Your task to perform on an android device: Go to privacy settings Image 0: 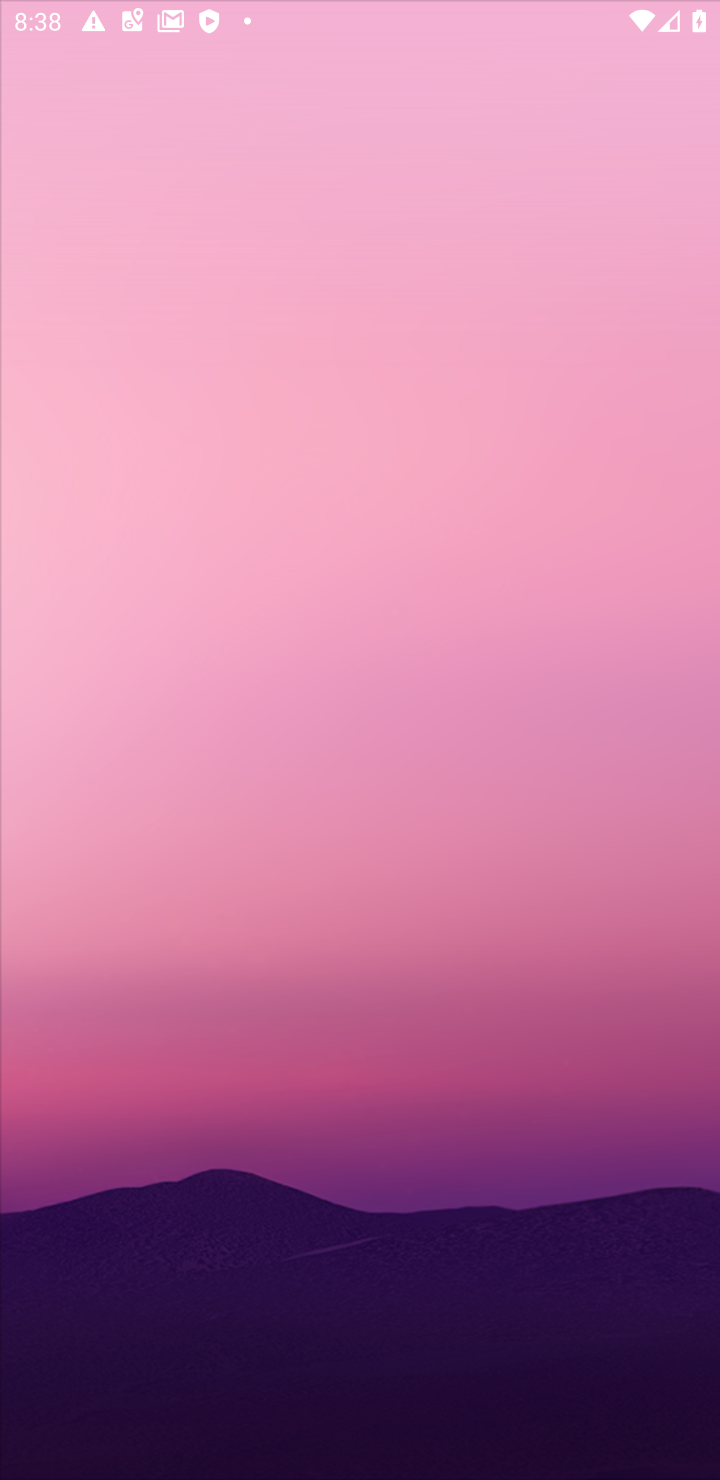
Step 0: click (612, 13)
Your task to perform on an android device: Go to privacy settings Image 1: 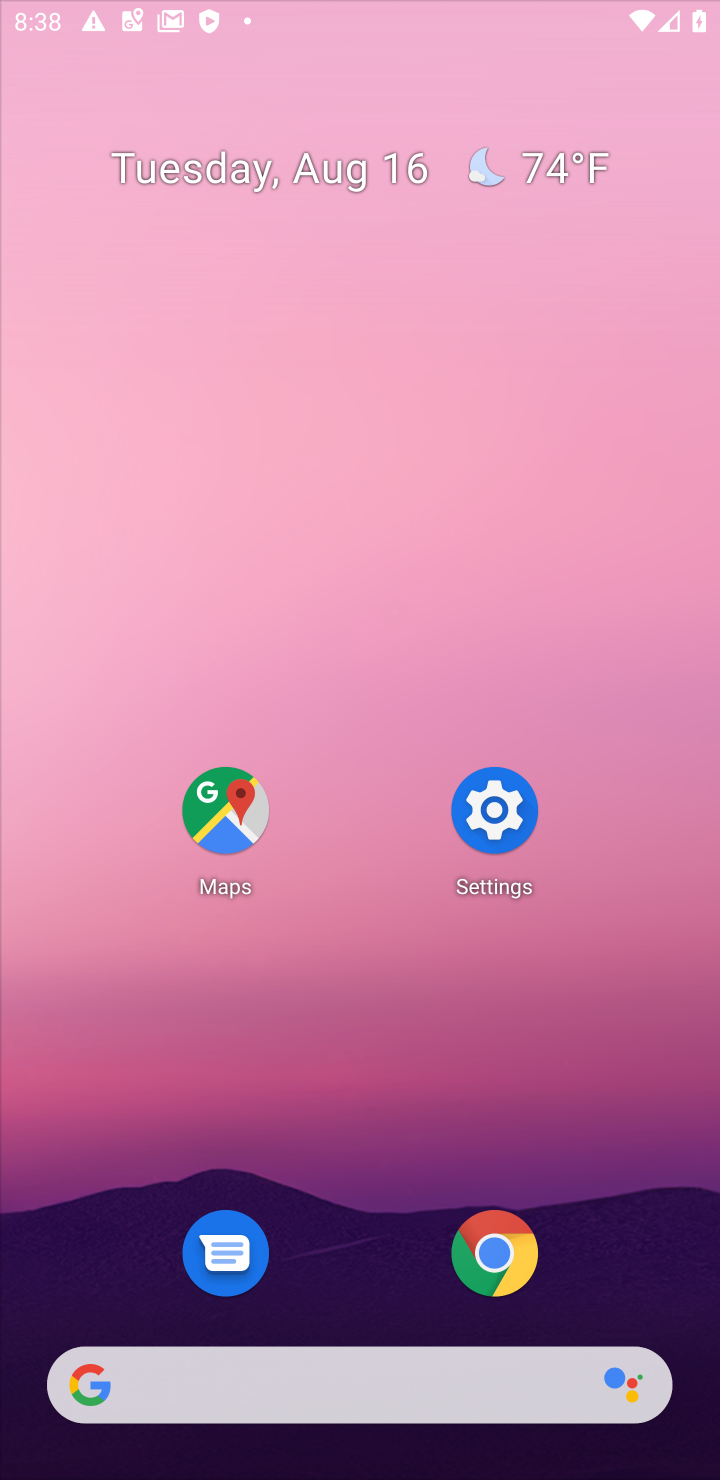
Step 1: press home button
Your task to perform on an android device: Go to privacy settings Image 2: 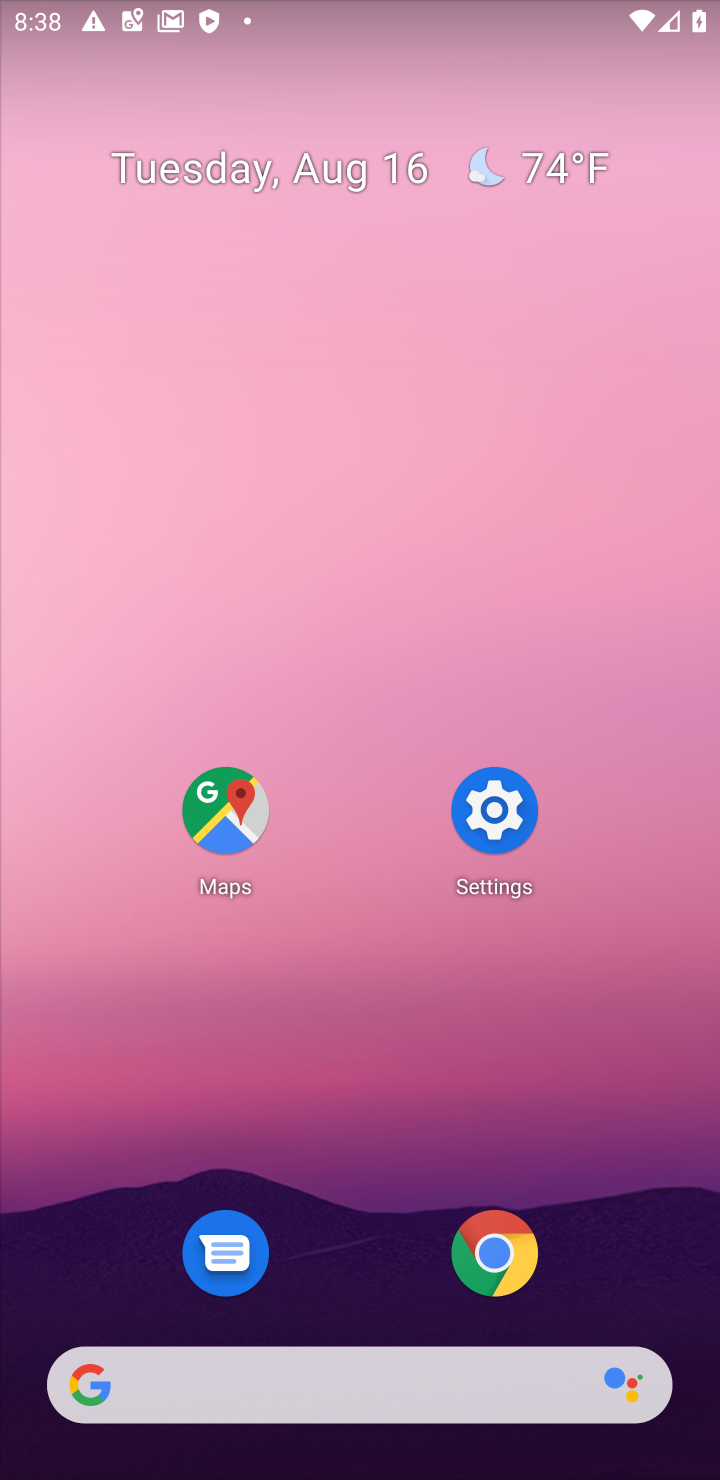
Step 2: press home button
Your task to perform on an android device: Go to privacy settings Image 3: 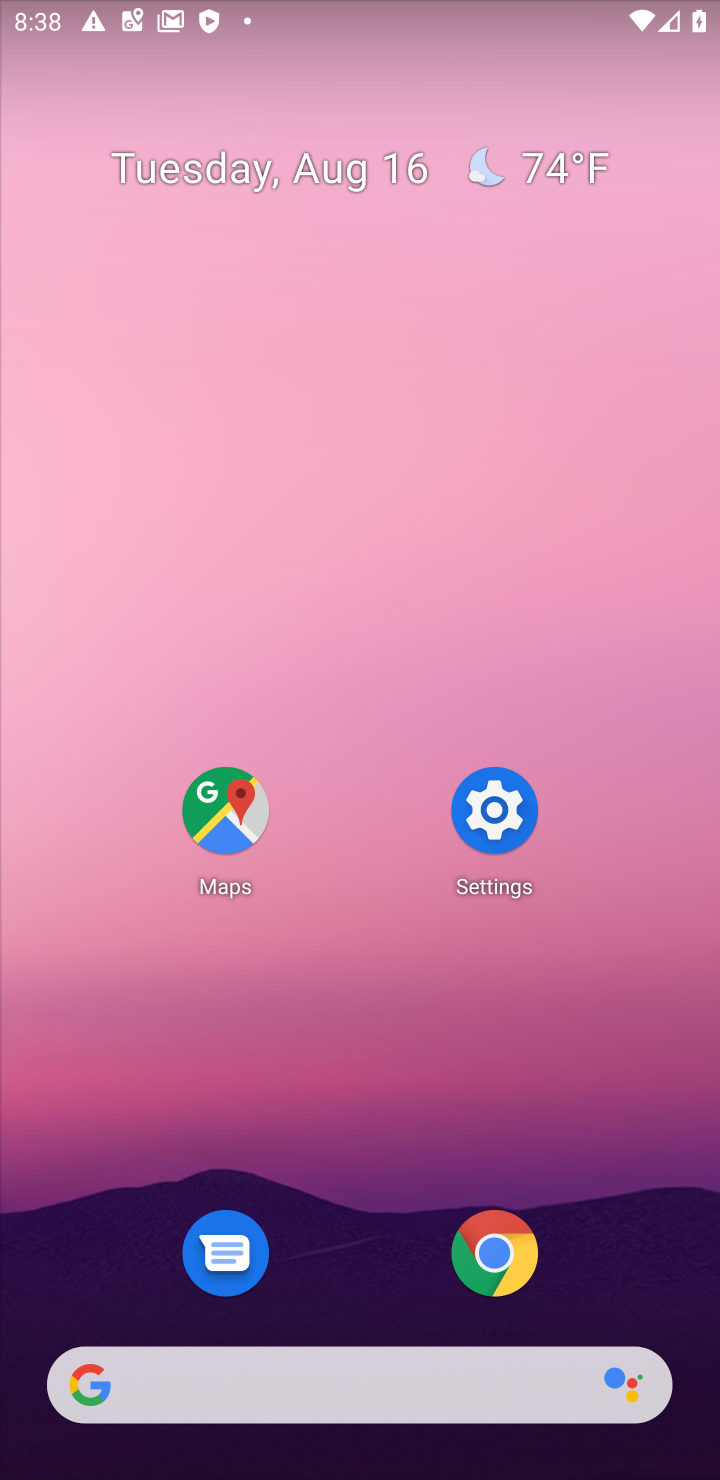
Step 3: click (481, 813)
Your task to perform on an android device: Go to privacy settings Image 4: 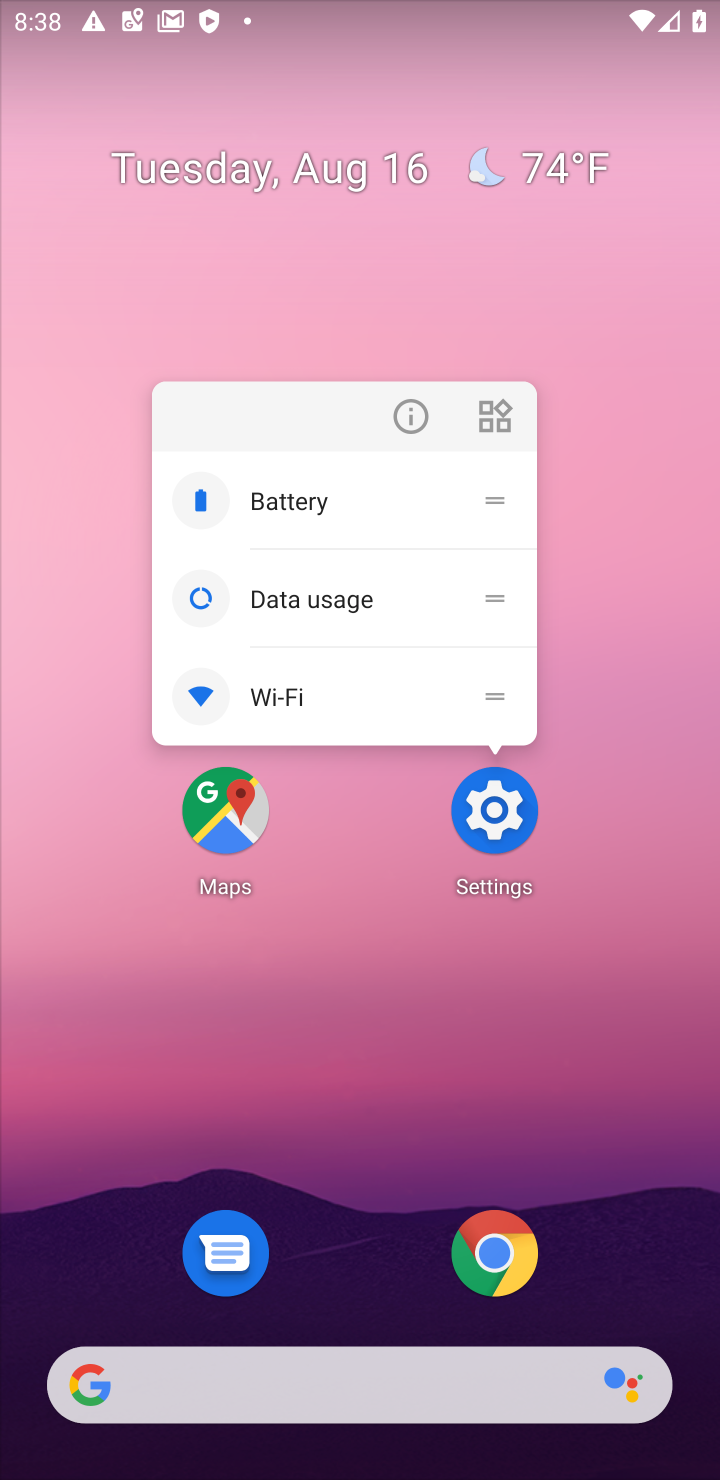
Step 4: click (494, 810)
Your task to perform on an android device: Go to privacy settings Image 5: 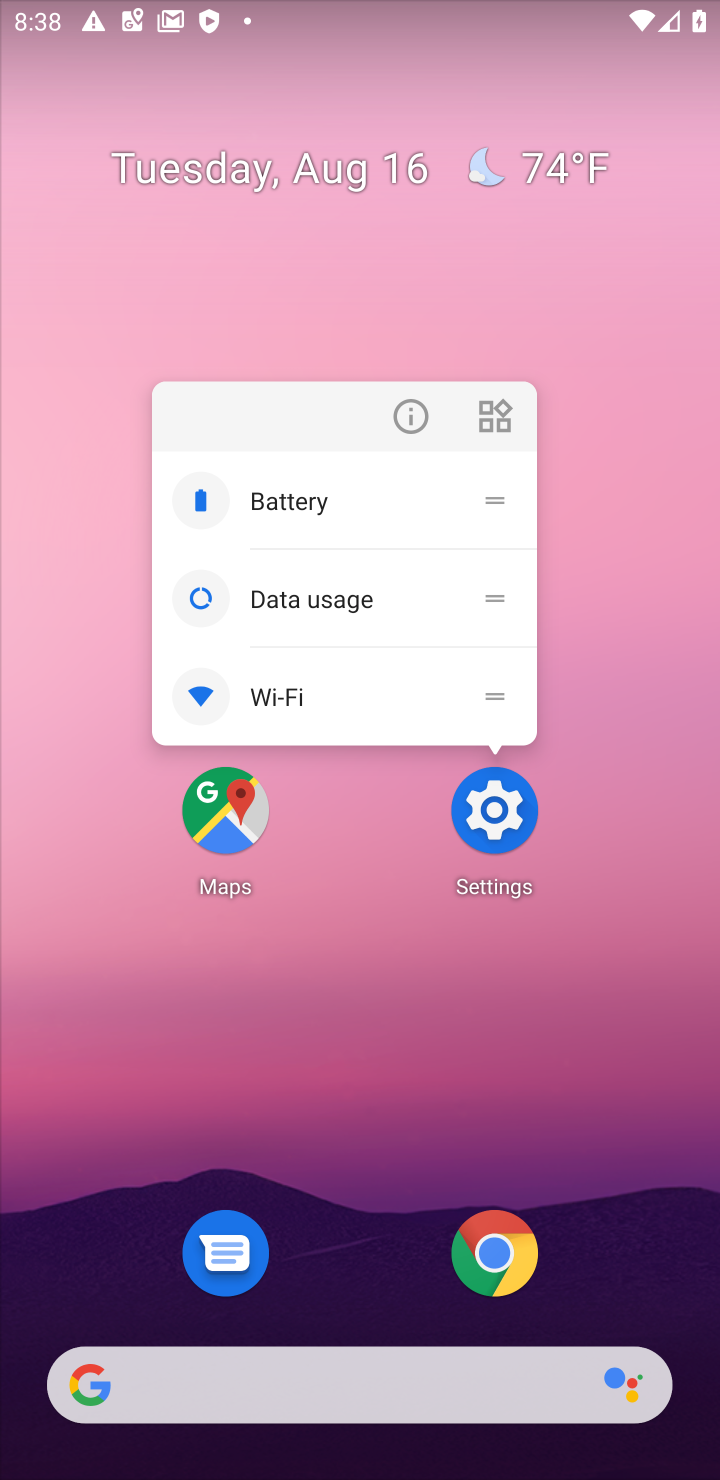
Step 5: click (494, 817)
Your task to perform on an android device: Go to privacy settings Image 6: 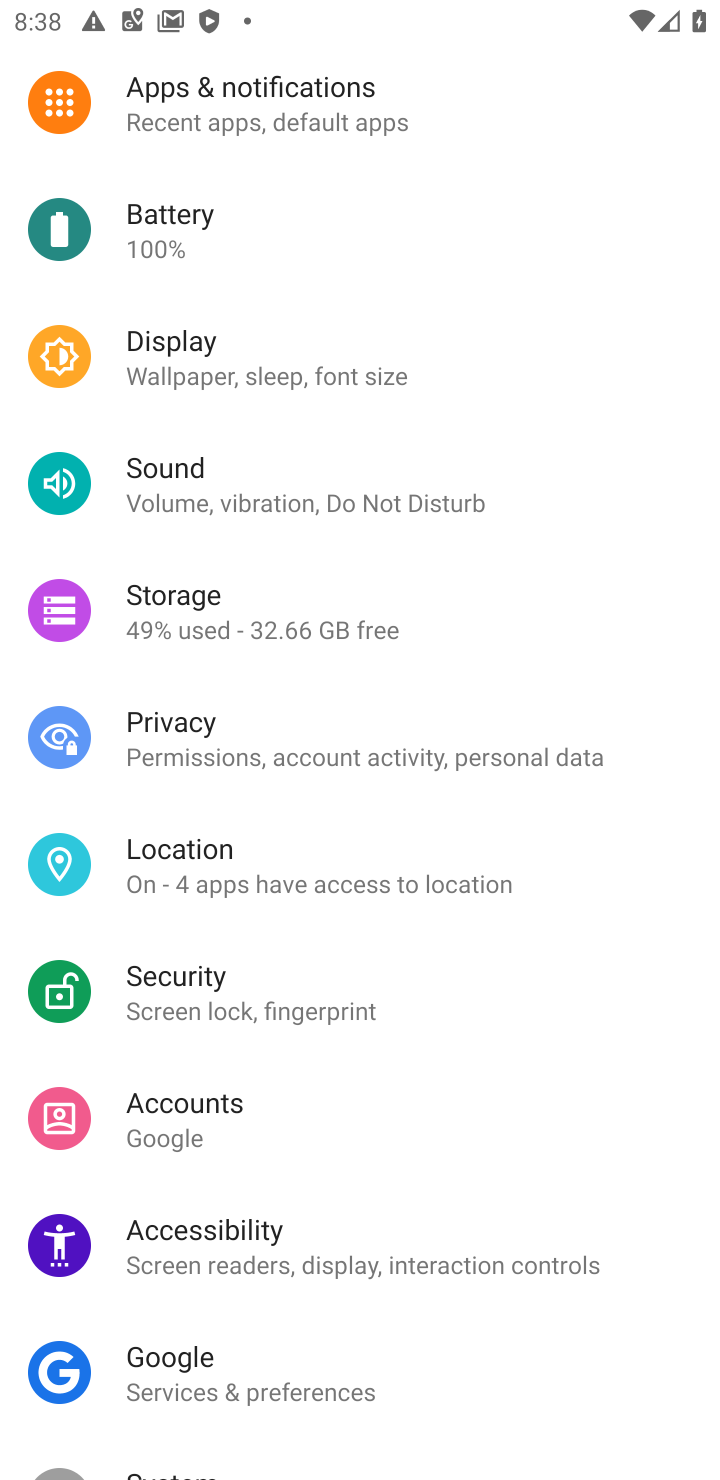
Step 6: click (197, 730)
Your task to perform on an android device: Go to privacy settings Image 7: 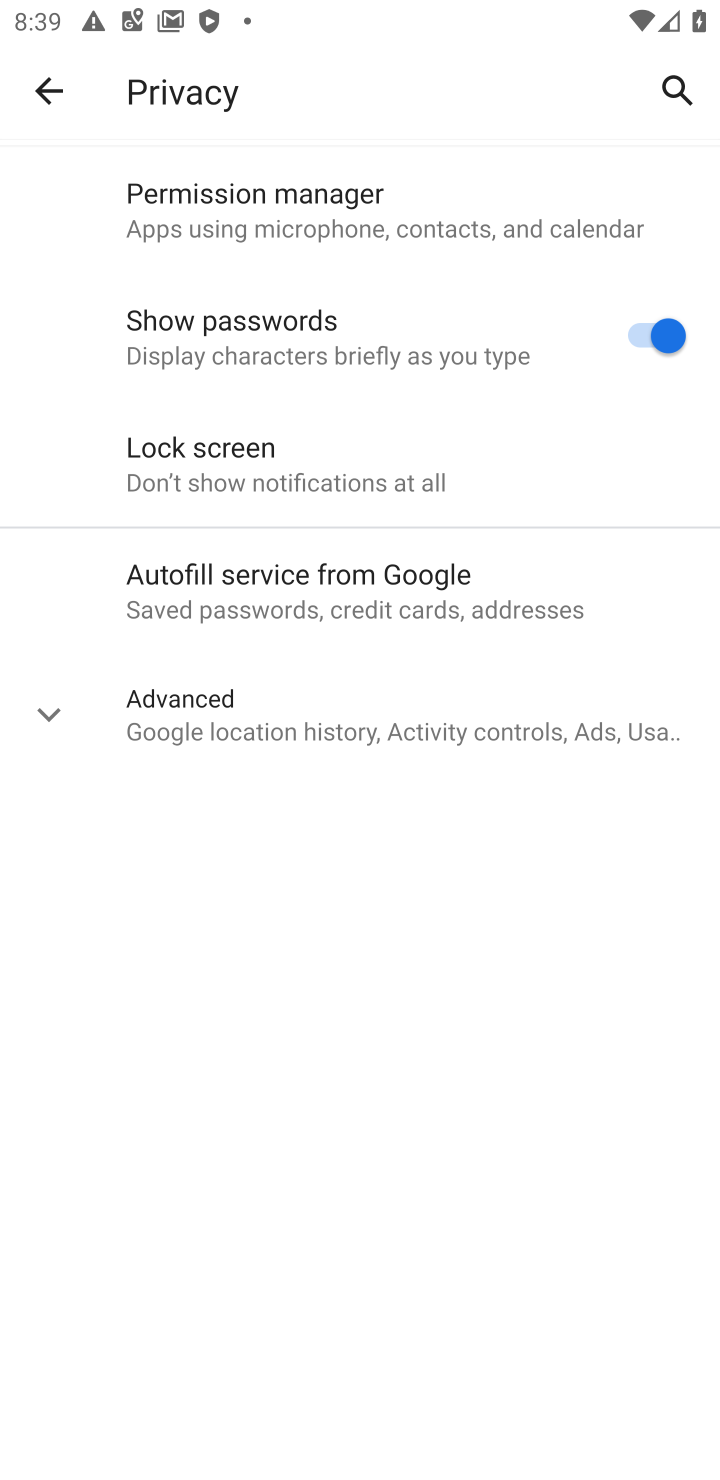
Step 7: task complete